Your task to perform on an android device: What is the recent news? Image 0: 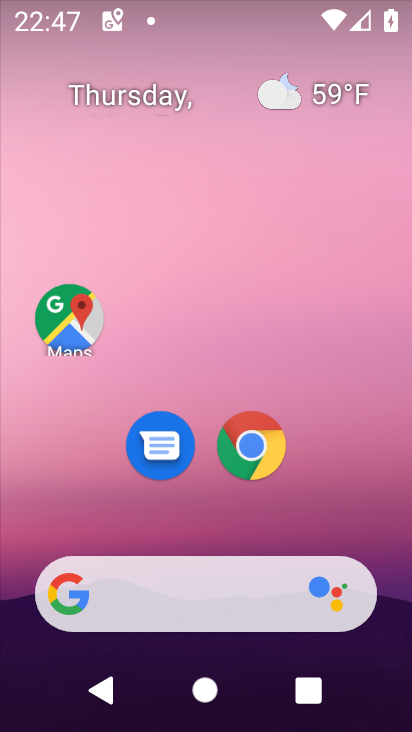
Step 0: drag from (23, 202) to (355, 308)
Your task to perform on an android device: What is the recent news? Image 1: 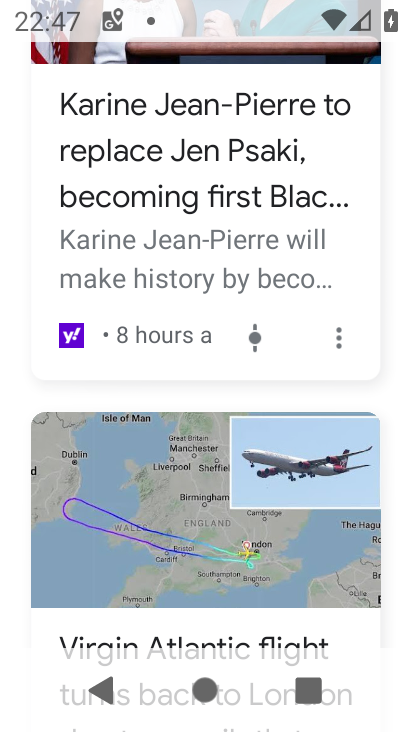
Step 1: task complete